Your task to perform on an android device: turn off airplane mode Image 0: 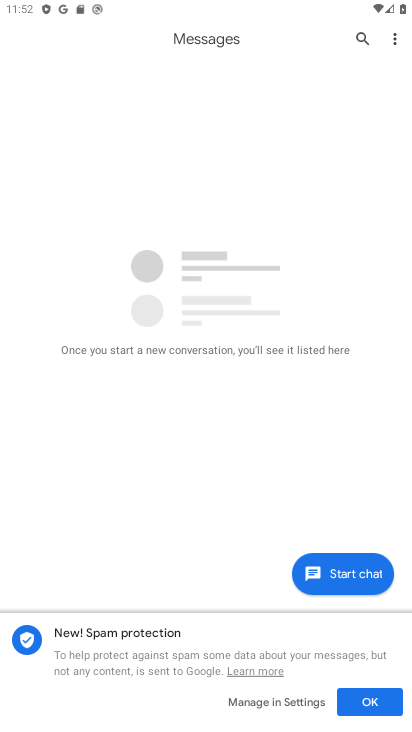
Step 0: press home button
Your task to perform on an android device: turn off airplane mode Image 1: 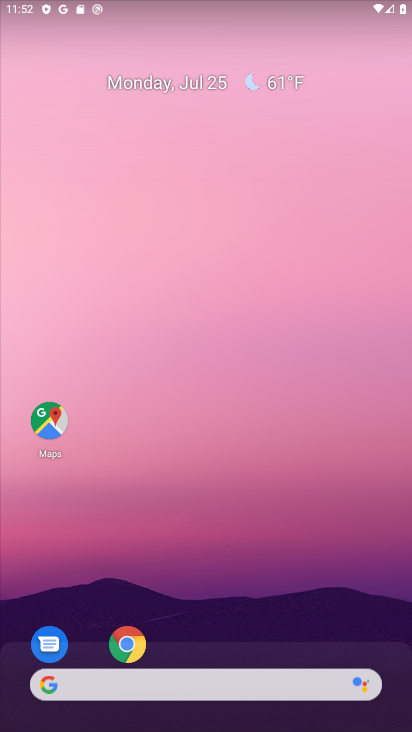
Step 1: drag from (225, 349) to (296, 3)
Your task to perform on an android device: turn off airplane mode Image 2: 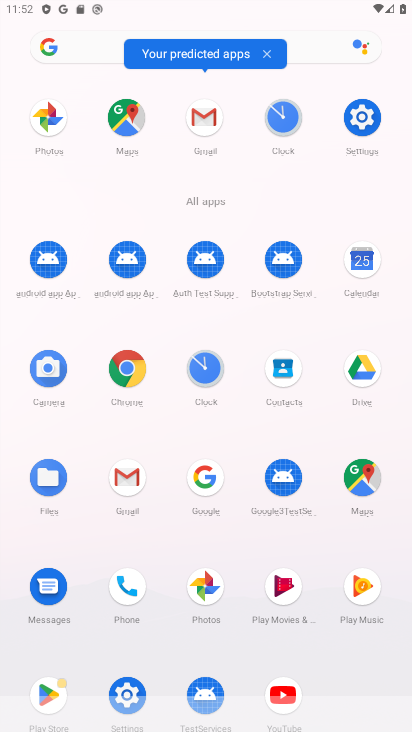
Step 2: click (357, 112)
Your task to perform on an android device: turn off airplane mode Image 3: 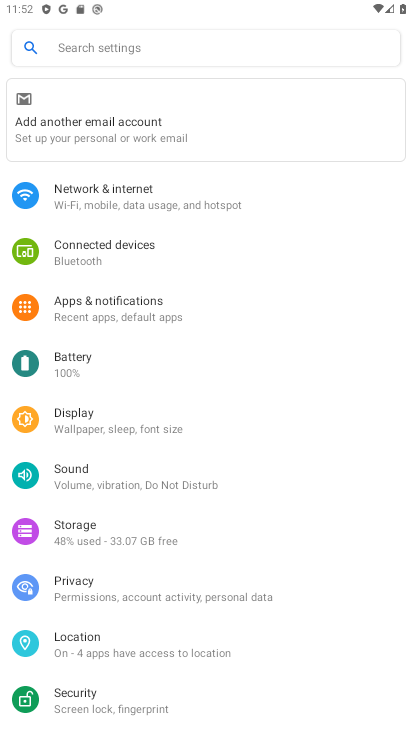
Step 3: click (93, 187)
Your task to perform on an android device: turn off airplane mode Image 4: 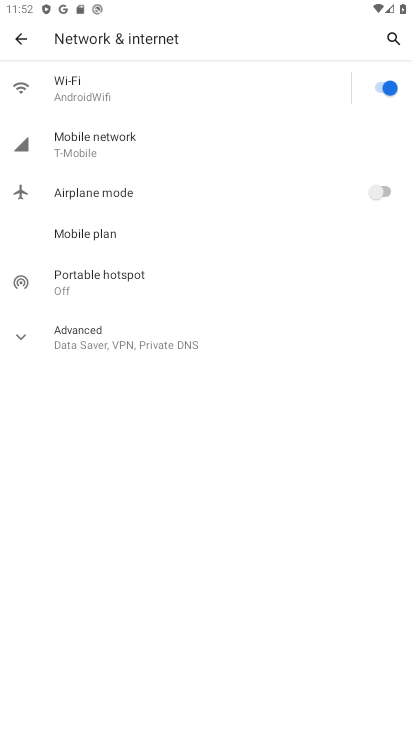
Step 4: task complete